Your task to perform on an android device: Go to network settings Image 0: 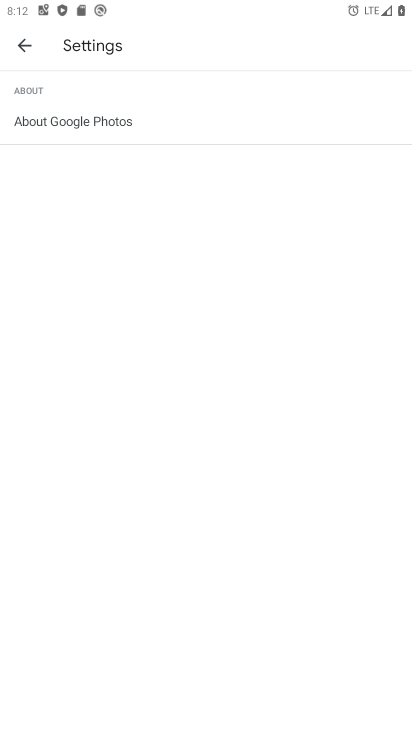
Step 0: press home button
Your task to perform on an android device: Go to network settings Image 1: 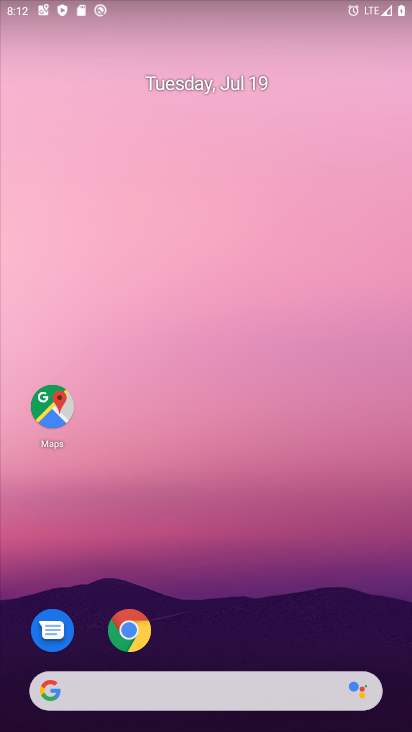
Step 1: drag from (278, 614) to (248, 93)
Your task to perform on an android device: Go to network settings Image 2: 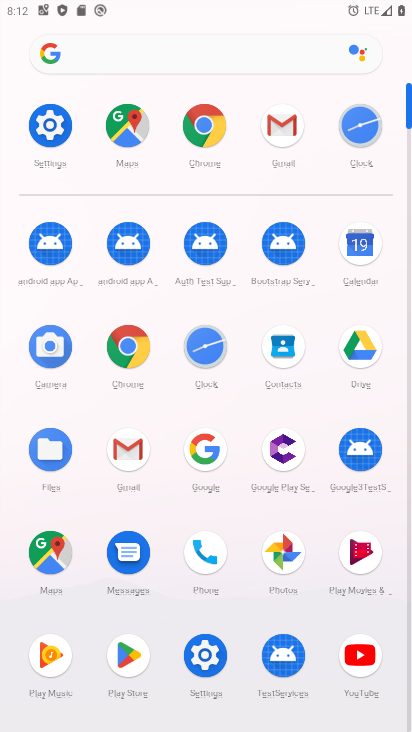
Step 2: click (60, 128)
Your task to perform on an android device: Go to network settings Image 3: 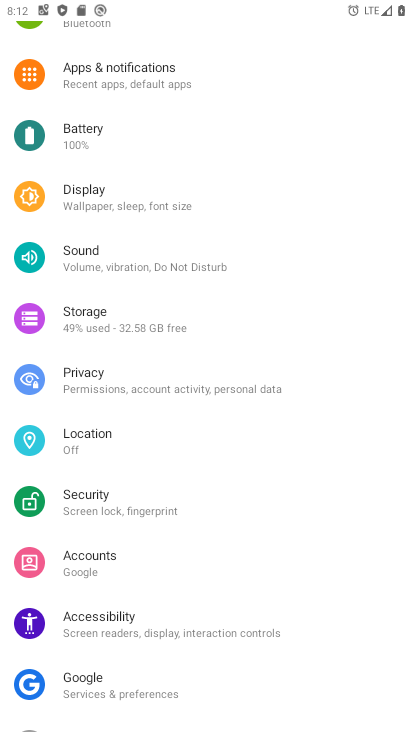
Step 3: drag from (145, 150) to (188, 524)
Your task to perform on an android device: Go to network settings Image 4: 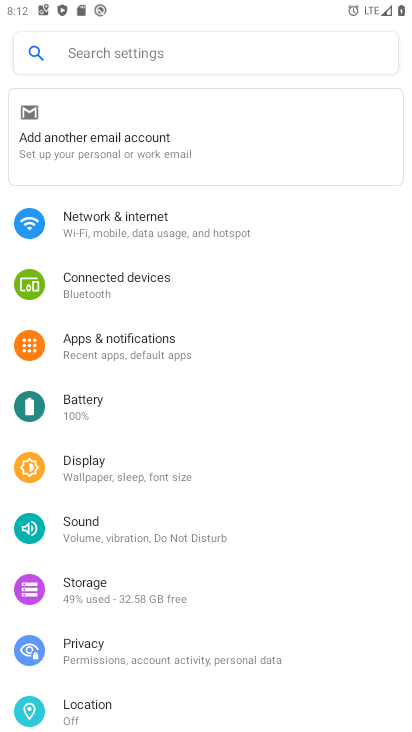
Step 4: click (91, 224)
Your task to perform on an android device: Go to network settings Image 5: 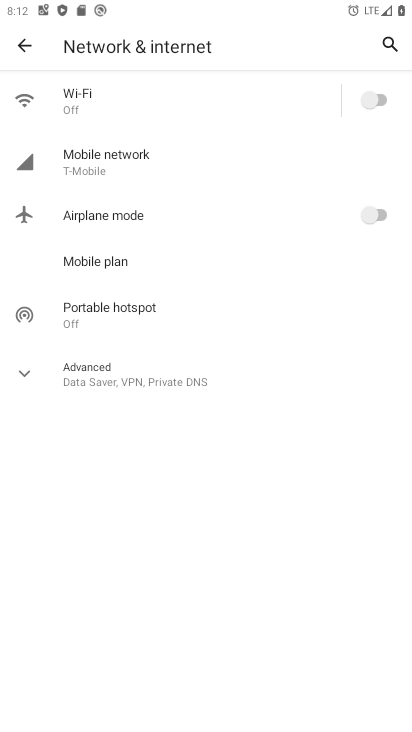
Step 5: click (235, 96)
Your task to perform on an android device: Go to network settings Image 6: 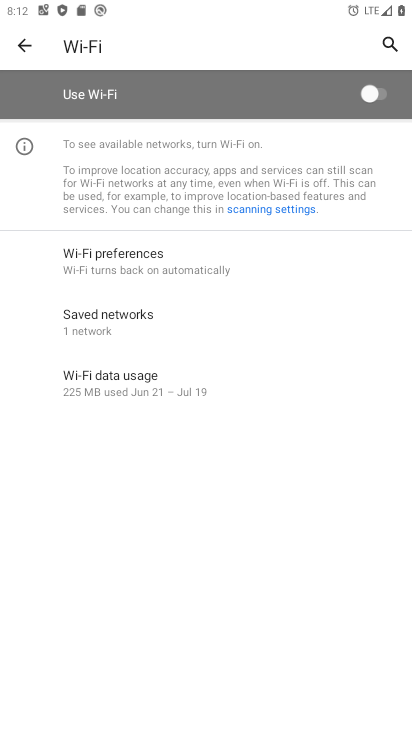
Step 6: click (362, 96)
Your task to perform on an android device: Go to network settings Image 7: 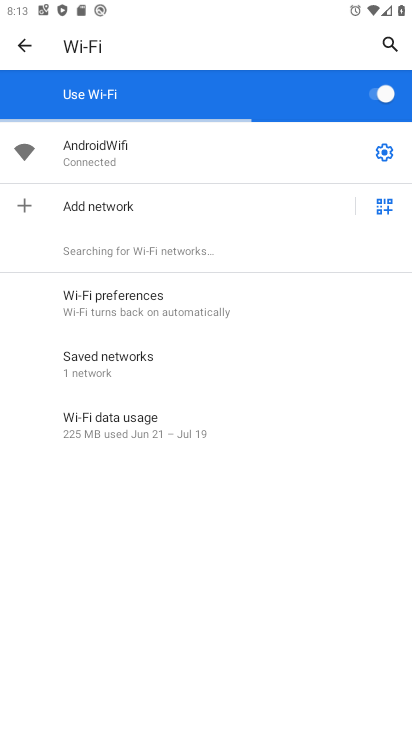
Step 7: click (384, 154)
Your task to perform on an android device: Go to network settings Image 8: 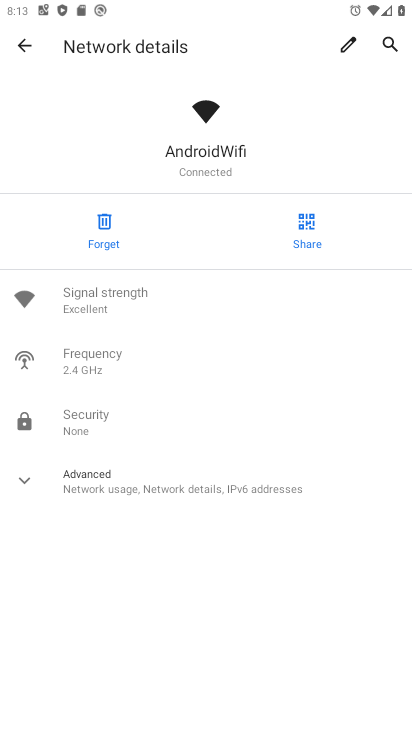
Step 8: task complete